Your task to perform on an android device: set default search engine in the chrome app Image 0: 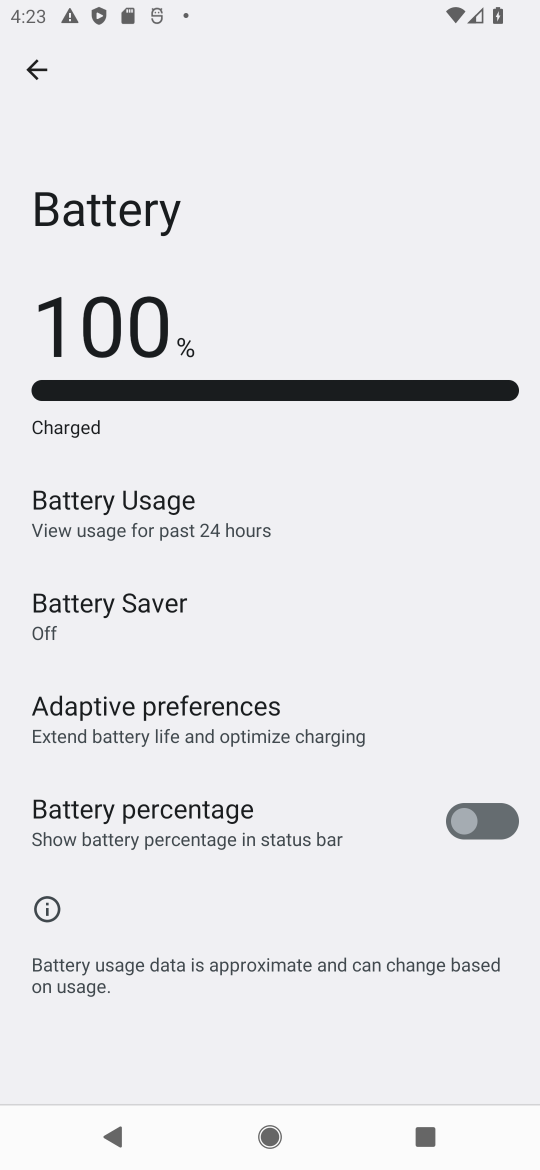
Step 0: press home button
Your task to perform on an android device: set default search engine in the chrome app Image 1: 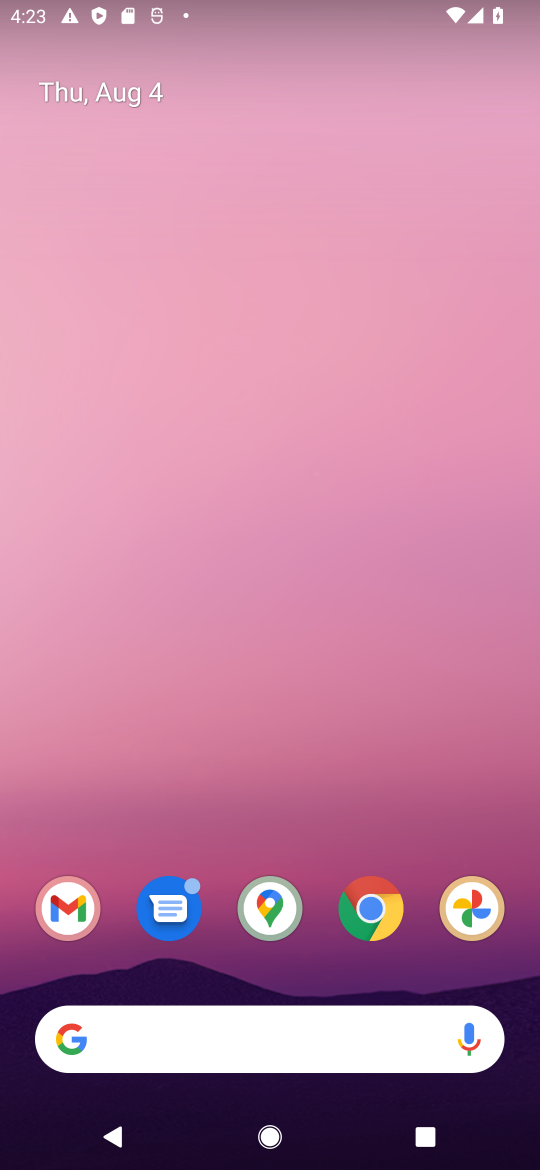
Step 1: drag from (251, 991) to (229, 195)
Your task to perform on an android device: set default search engine in the chrome app Image 2: 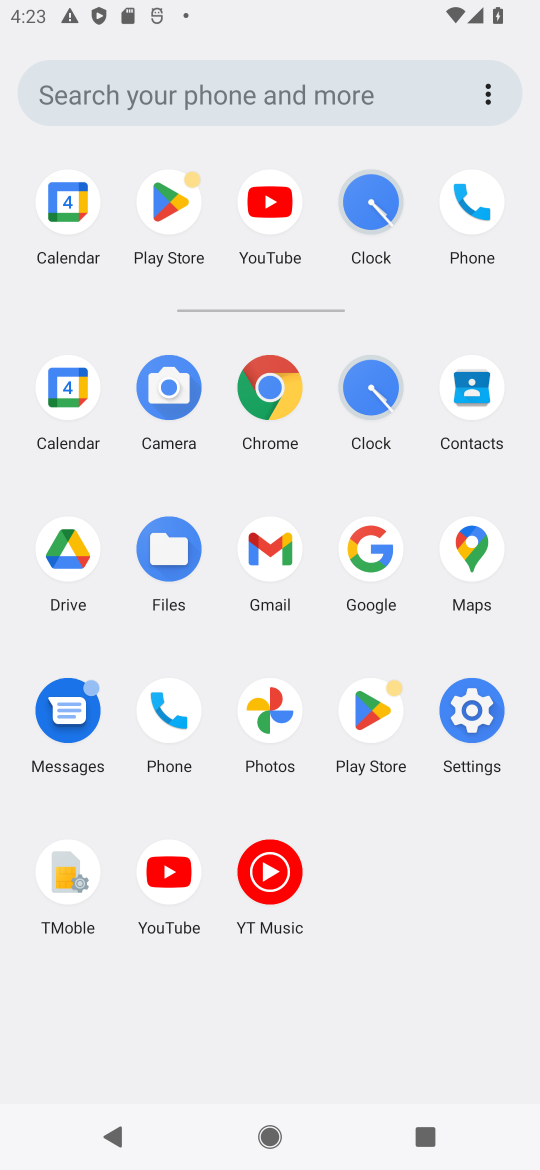
Step 2: click (259, 391)
Your task to perform on an android device: set default search engine in the chrome app Image 3: 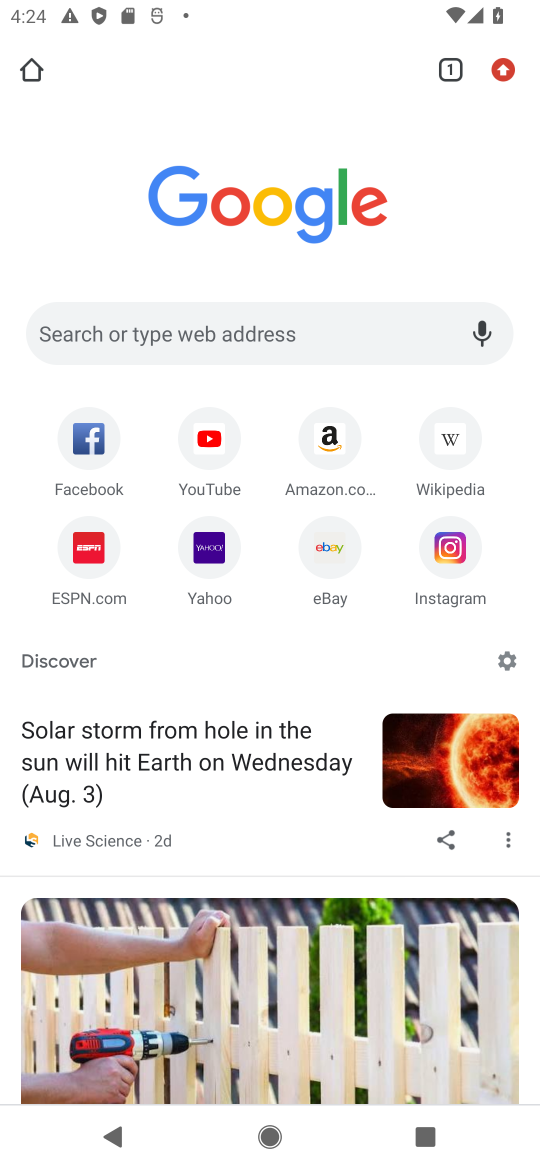
Step 3: drag from (502, 64) to (287, 721)
Your task to perform on an android device: set default search engine in the chrome app Image 4: 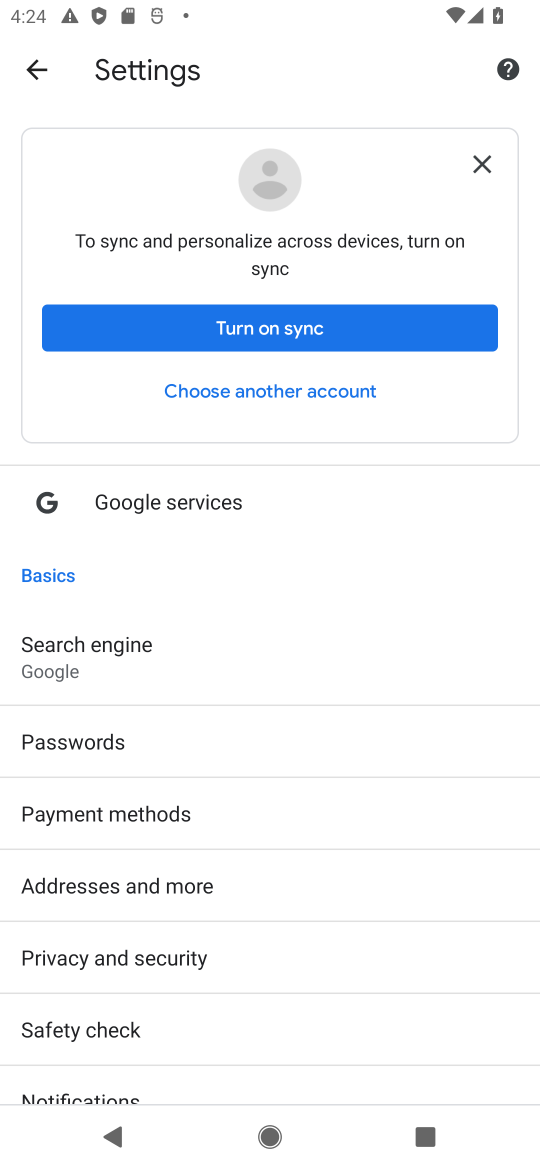
Step 4: click (126, 670)
Your task to perform on an android device: set default search engine in the chrome app Image 5: 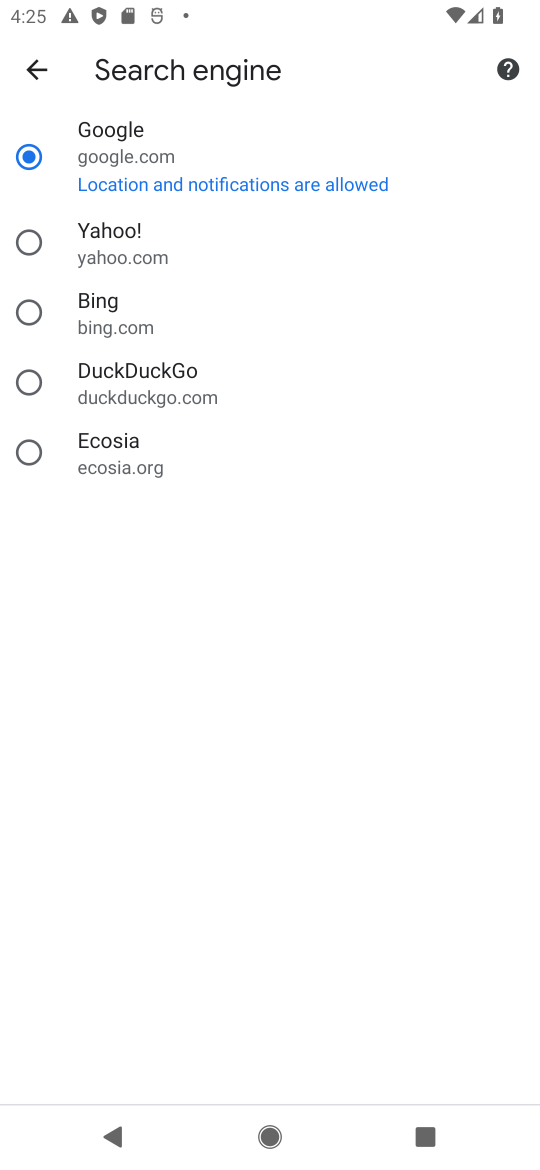
Step 5: click (19, 79)
Your task to perform on an android device: set default search engine in the chrome app Image 6: 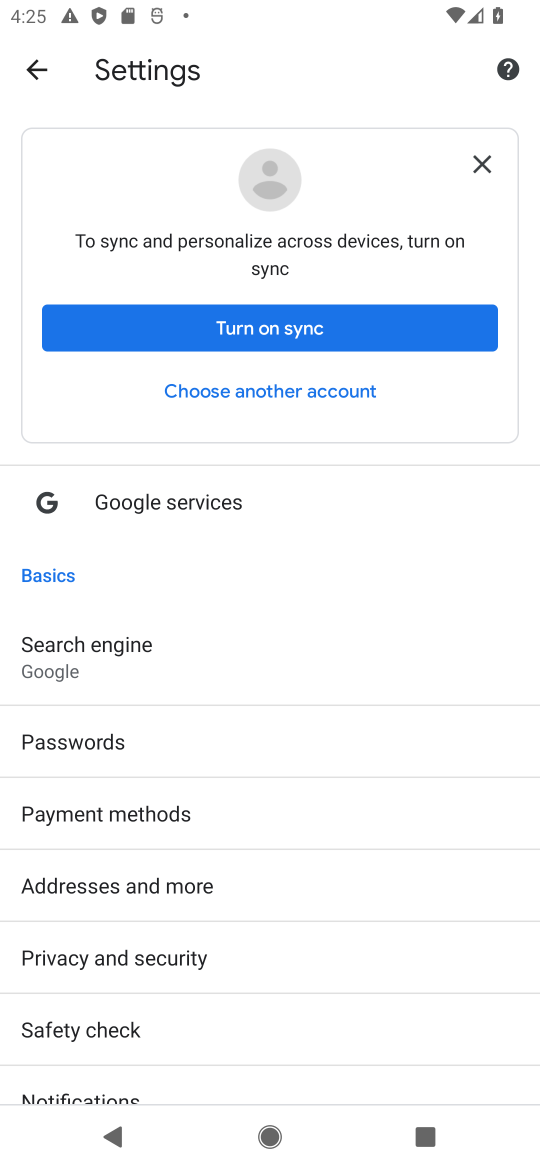
Step 6: click (112, 675)
Your task to perform on an android device: set default search engine in the chrome app Image 7: 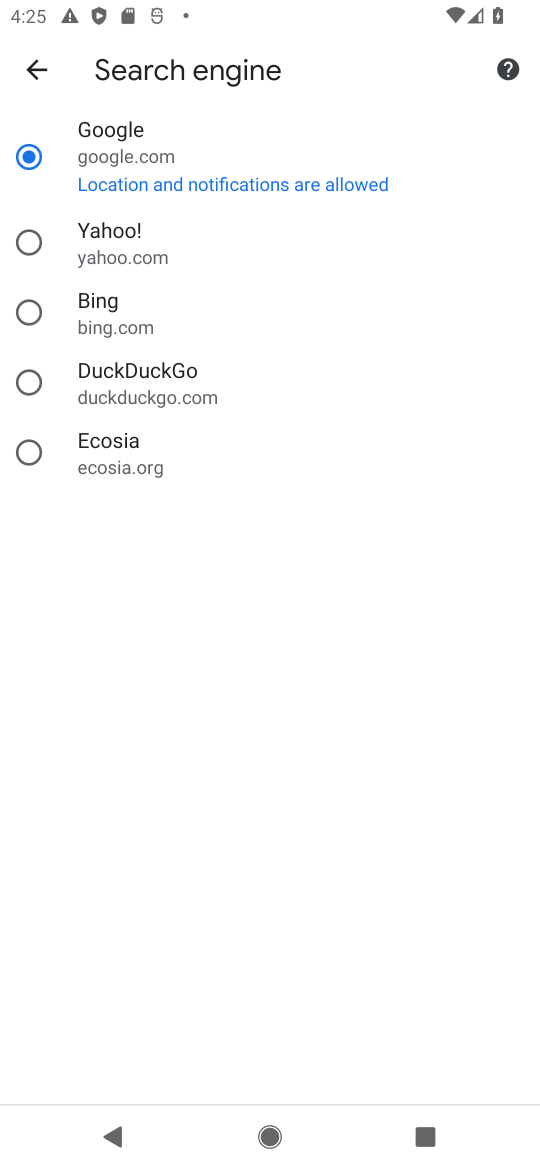
Step 7: task complete